Your task to perform on an android device: Open Google Chrome and open the bookmarks view Image 0: 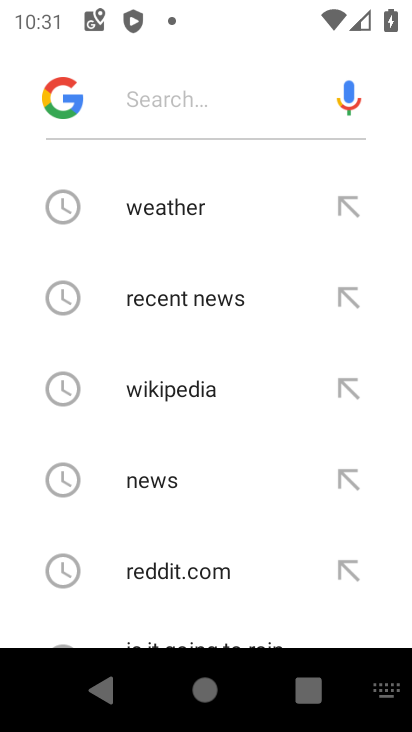
Step 0: press back button
Your task to perform on an android device: Open Google Chrome and open the bookmarks view Image 1: 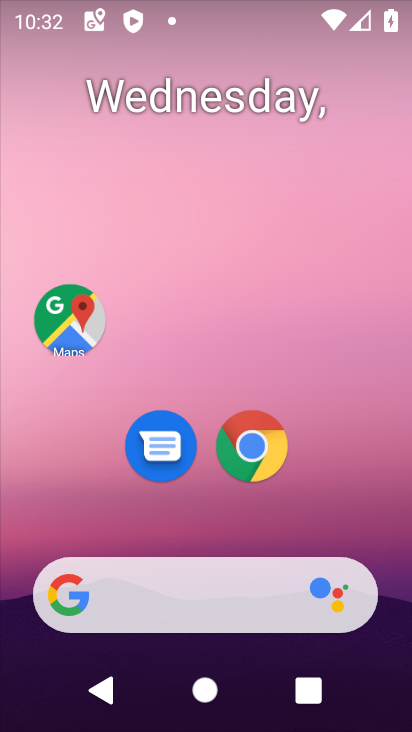
Step 1: click (251, 478)
Your task to perform on an android device: Open Google Chrome and open the bookmarks view Image 2: 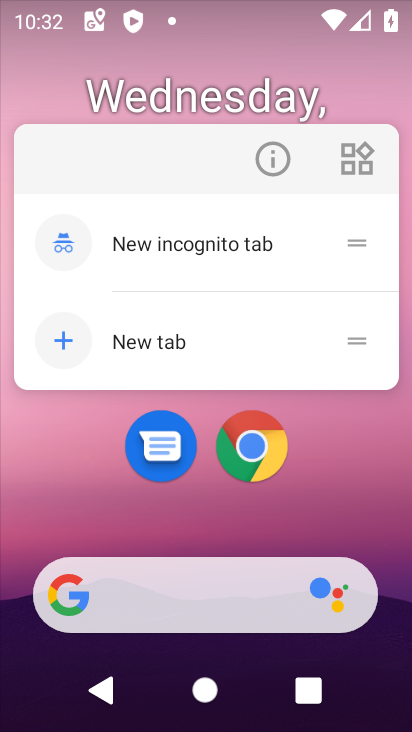
Step 2: click (251, 478)
Your task to perform on an android device: Open Google Chrome and open the bookmarks view Image 3: 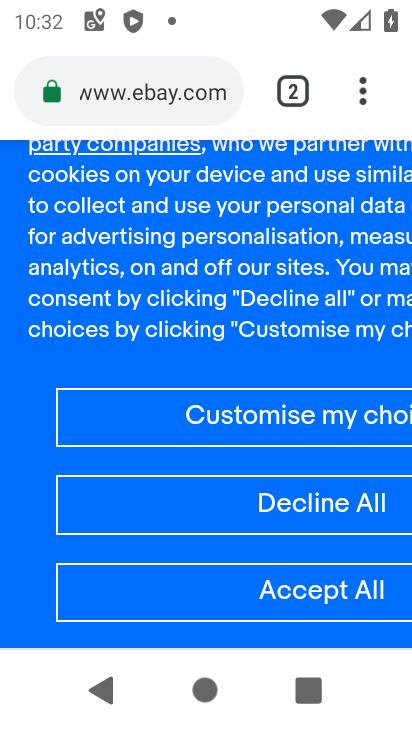
Step 3: click (356, 102)
Your task to perform on an android device: Open Google Chrome and open the bookmarks view Image 4: 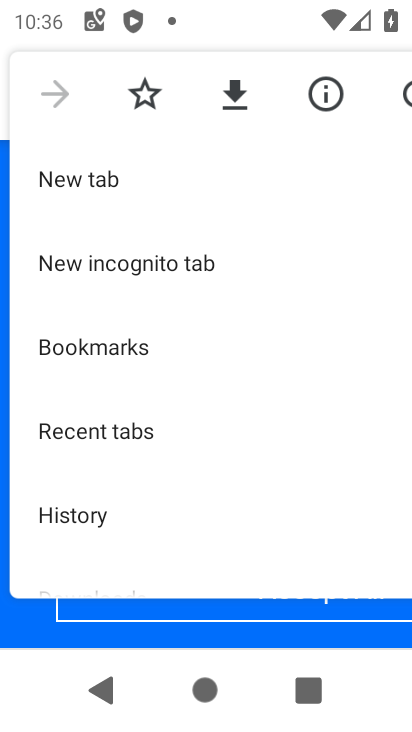
Step 4: click (68, 350)
Your task to perform on an android device: Open Google Chrome and open the bookmarks view Image 5: 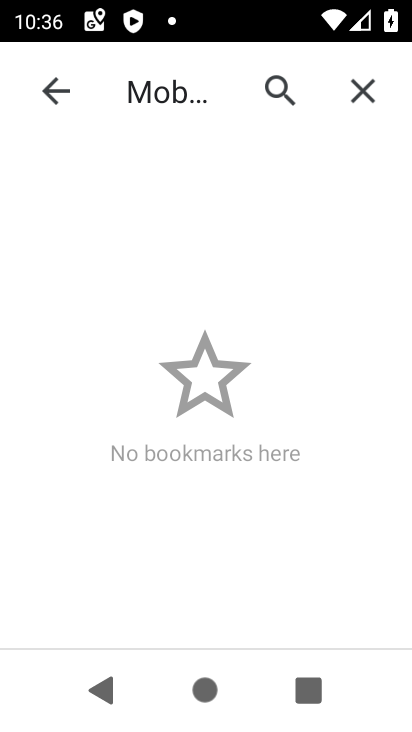
Step 5: task complete